Your task to perform on an android device: turn on translation in the chrome app Image 0: 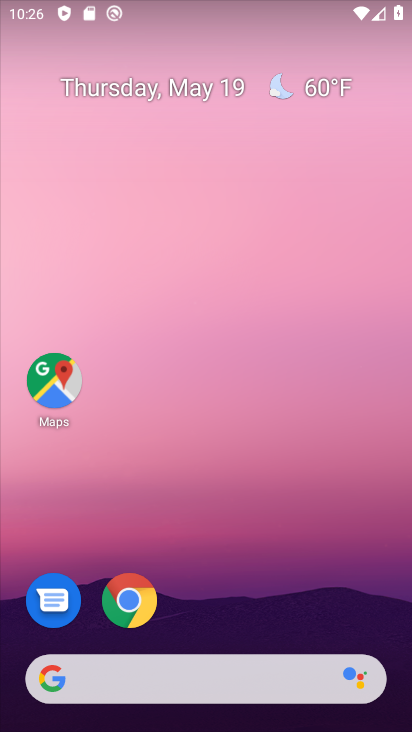
Step 0: drag from (293, 603) to (301, 153)
Your task to perform on an android device: turn on translation in the chrome app Image 1: 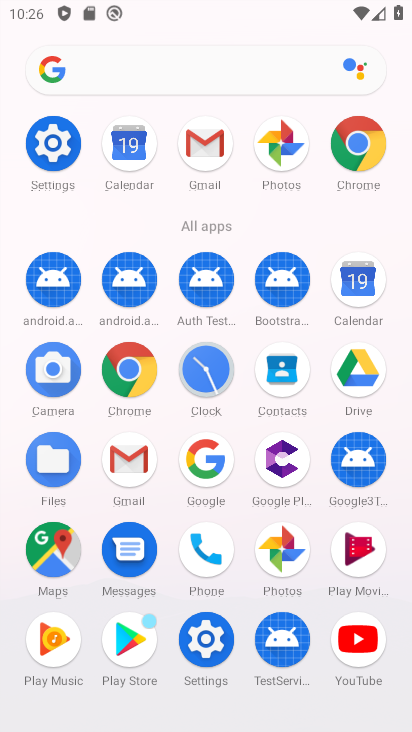
Step 1: click (136, 378)
Your task to perform on an android device: turn on translation in the chrome app Image 2: 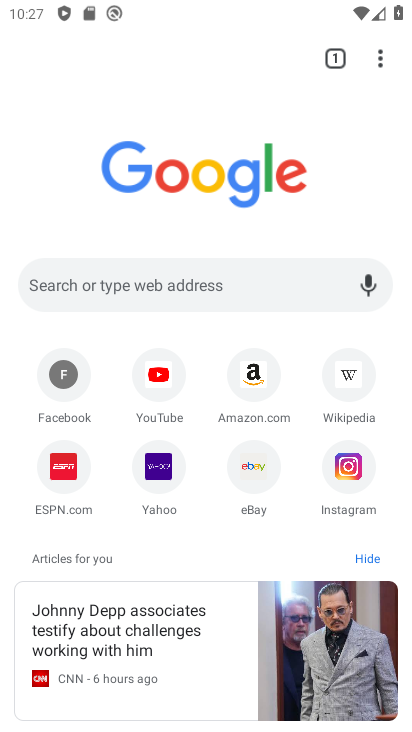
Step 2: click (378, 61)
Your task to perform on an android device: turn on translation in the chrome app Image 3: 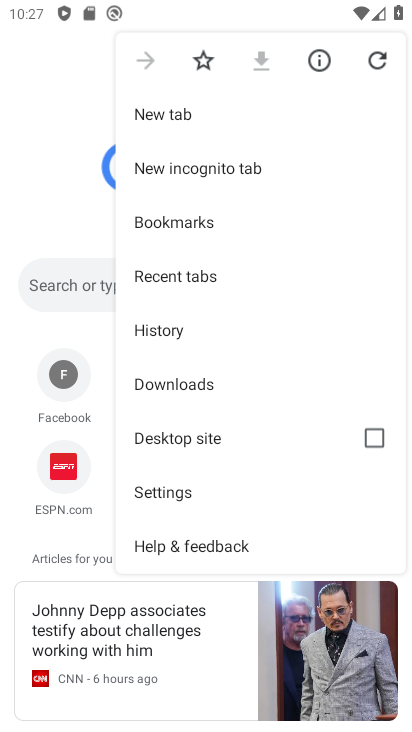
Step 3: click (172, 490)
Your task to perform on an android device: turn on translation in the chrome app Image 4: 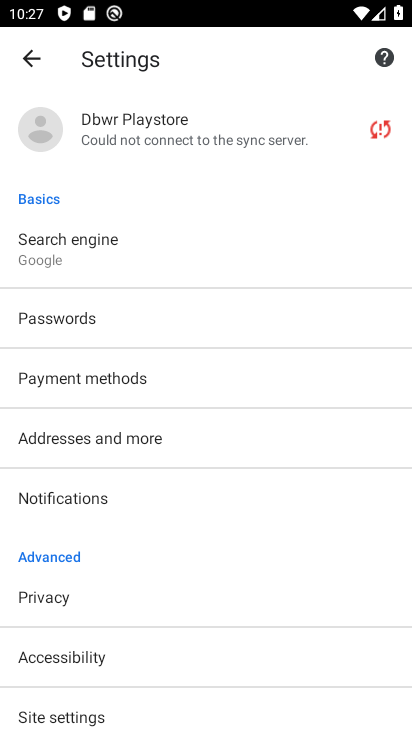
Step 4: drag from (226, 594) to (231, 515)
Your task to perform on an android device: turn on translation in the chrome app Image 5: 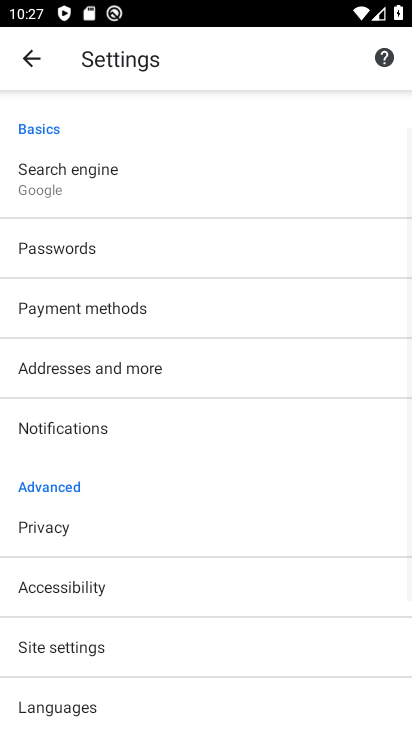
Step 5: drag from (233, 657) to (239, 517)
Your task to perform on an android device: turn on translation in the chrome app Image 6: 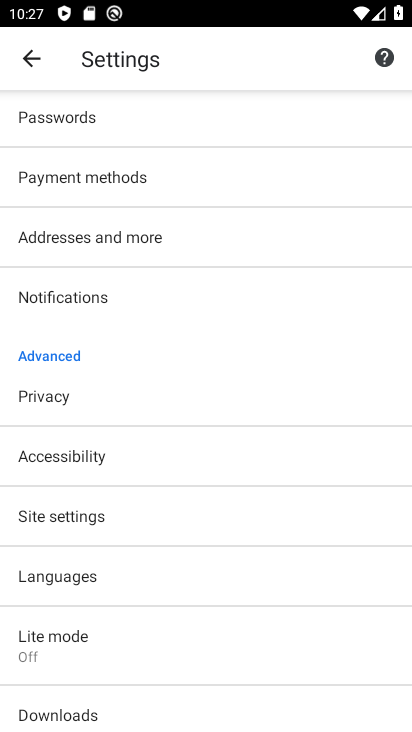
Step 6: drag from (242, 654) to (233, 527)
Your task to perform on an android device: turn on translation in the chrome app Image 7: 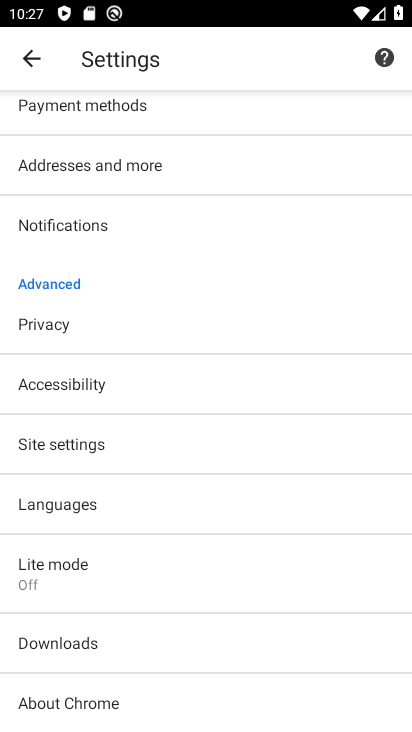
Step 7: click (224, 502)
Your task to perform on an android device: turn on translation in the chrome app Image 8: 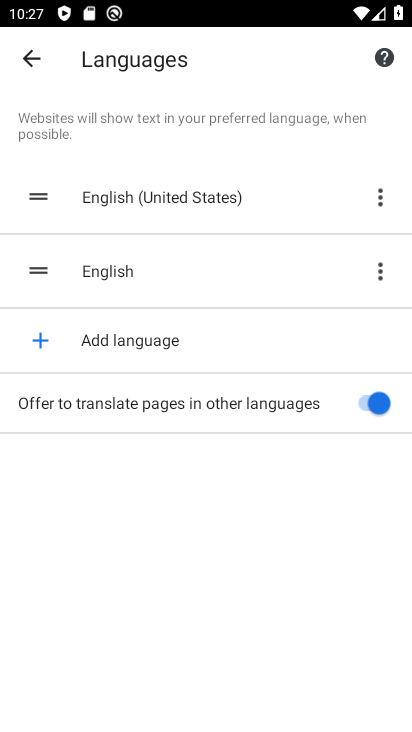
Step 8: task complete